Your task to perform on an android device: Show the shopping cart on target.com. Image 0: 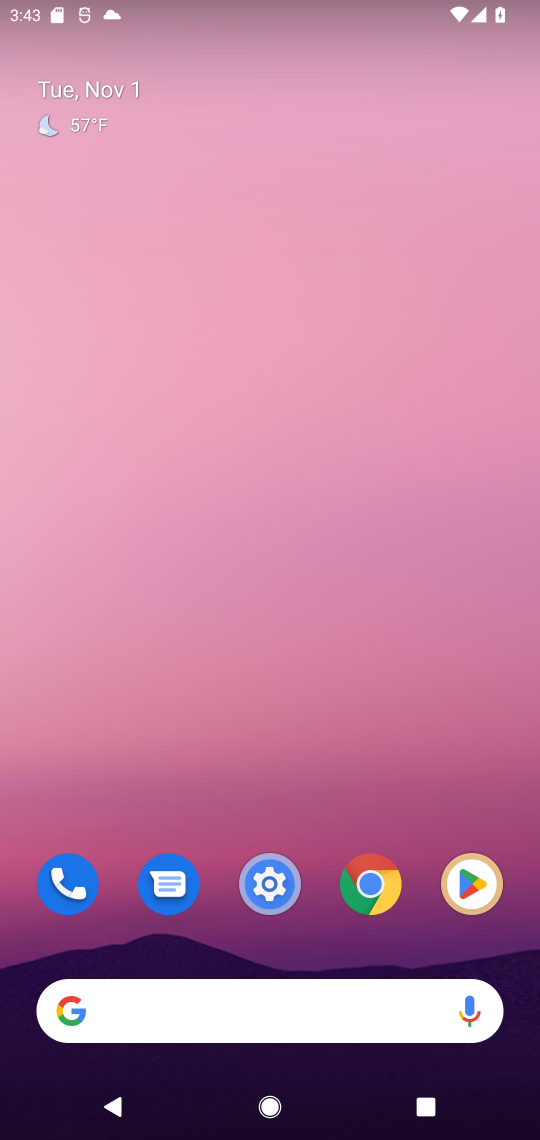
Step 0: press home button
Your task to perform on an android device: Show the shopping cart on target.com. Image 1: 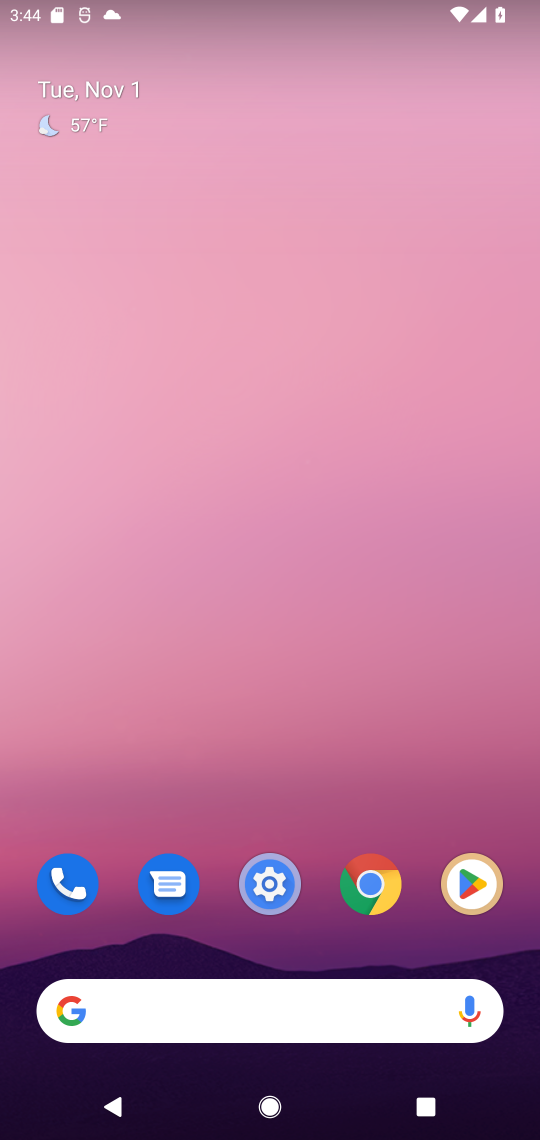
Step 1: click (113, 1005)
Your task to perform on an android device: Show the shopping cart on target.com. Image 2: 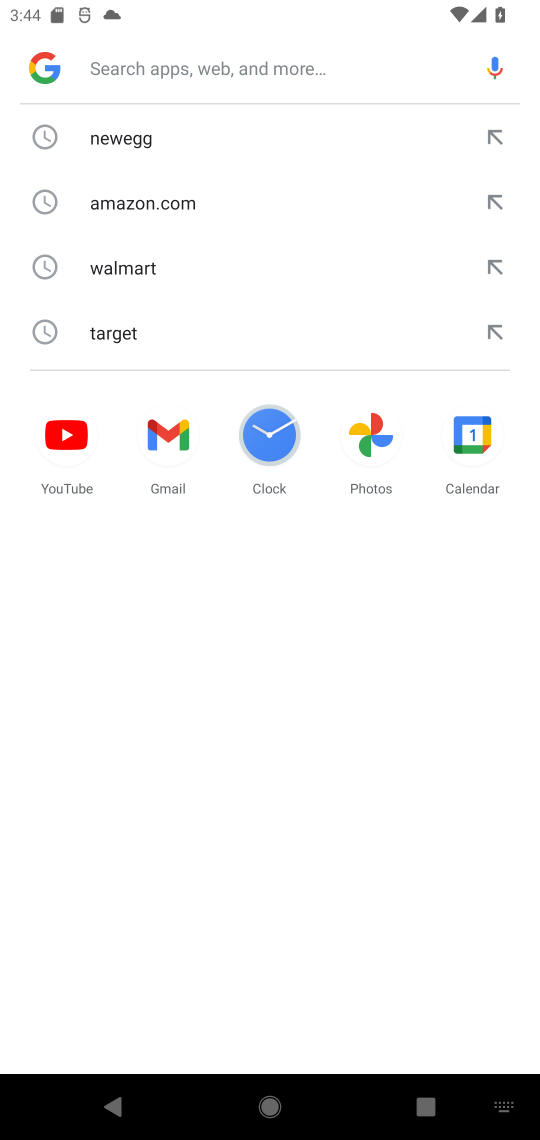
Step 2: type "target.com"
Your task to perform on an android device: Show the shopping cart on target.com. Image 3: 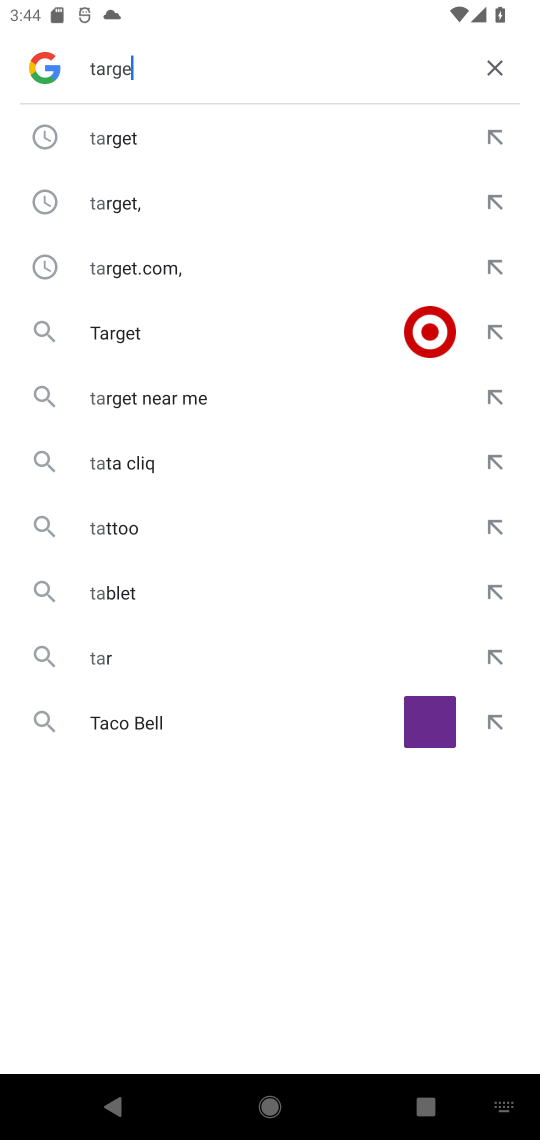
Step 3: press enter
Your task to perform on an android device: Show the shopping cart on target.com. Image 4: 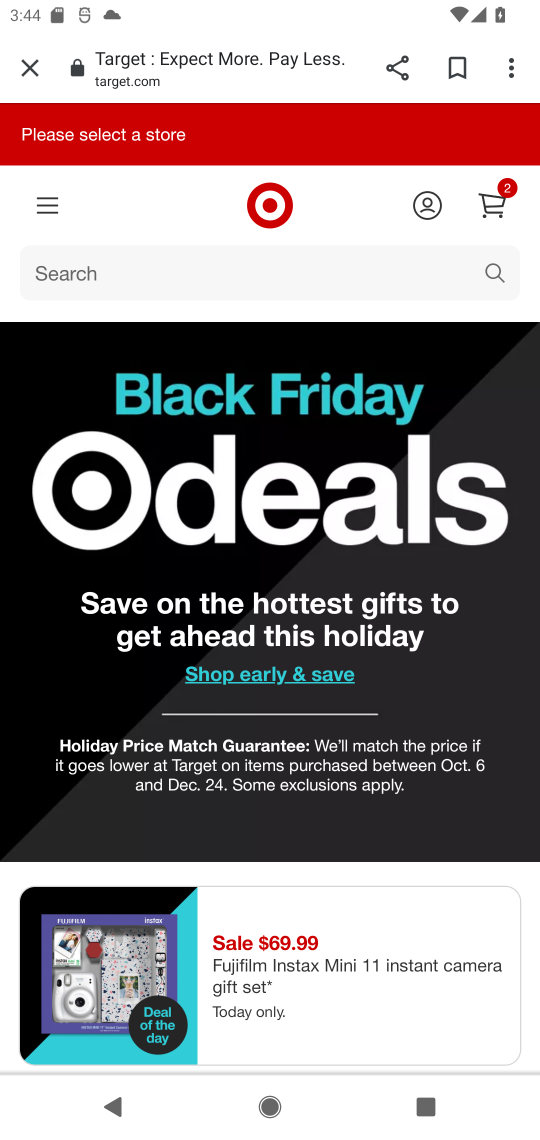
Step 4: click (492, 193)
Your task to perform on an android device: Show the shopping cart on target.com. Image 5: 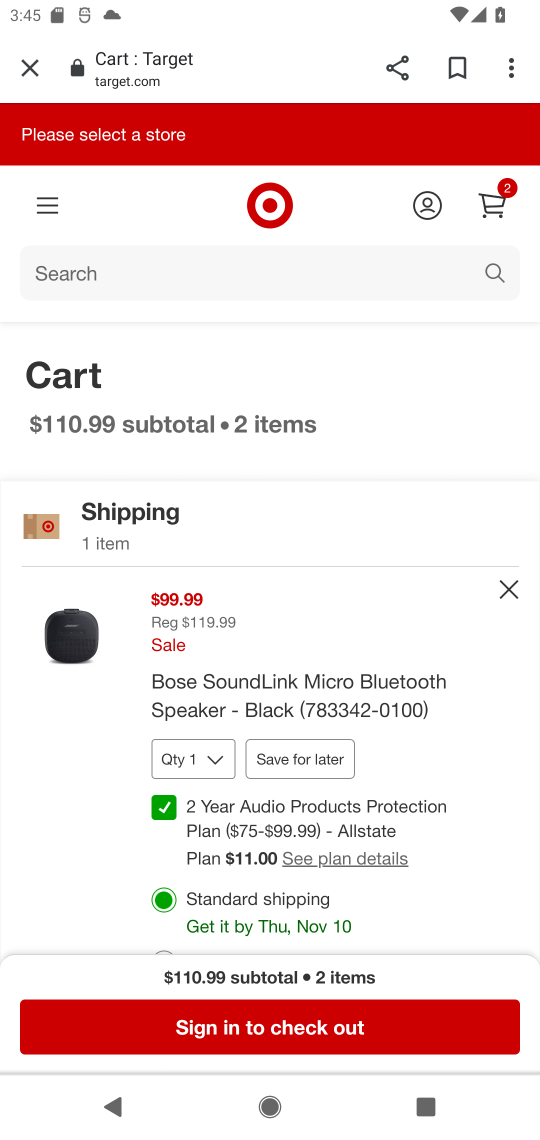
Step 5: task complete